Your task to perform on an android device: turn on wifi Image 0: 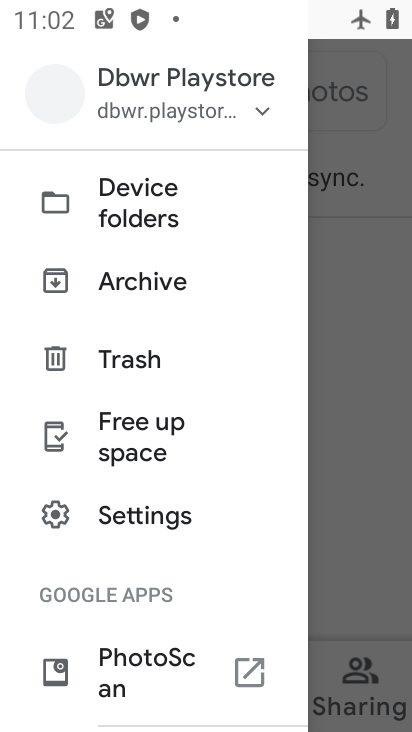
Step 0: press home button
Your task to perform on an android device: turn on wifi Image 1: 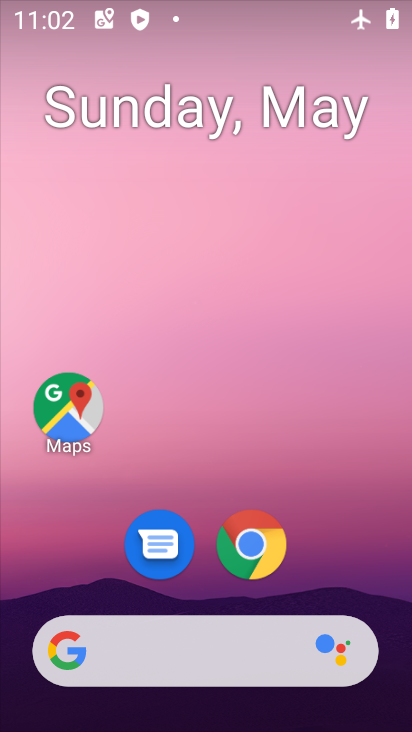
Step 1: drag from (351, 580) to (340, 285)
Your task to perform on an android device: turn on wifi Image 2: 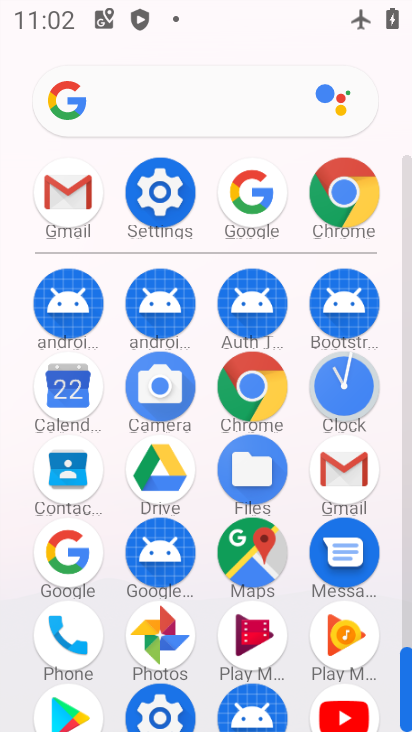
Step 2: click (158, 208)
Your task to perform on an android device: turn on wifi Image 3: 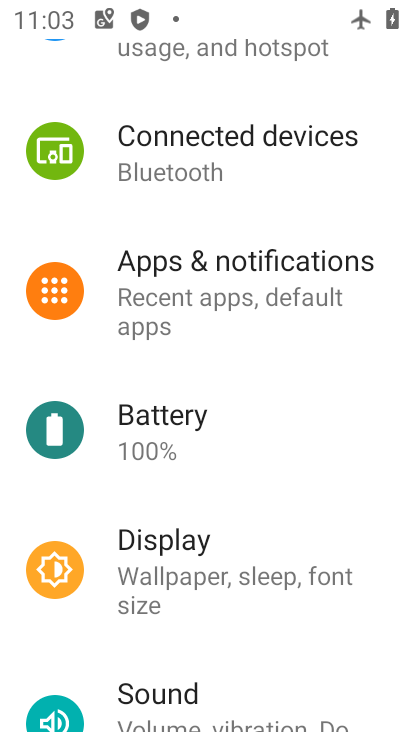
Step 3: drag from (316, 143) to (318, 654)
Your task to perform on an android device: turn on wifi Image 4: 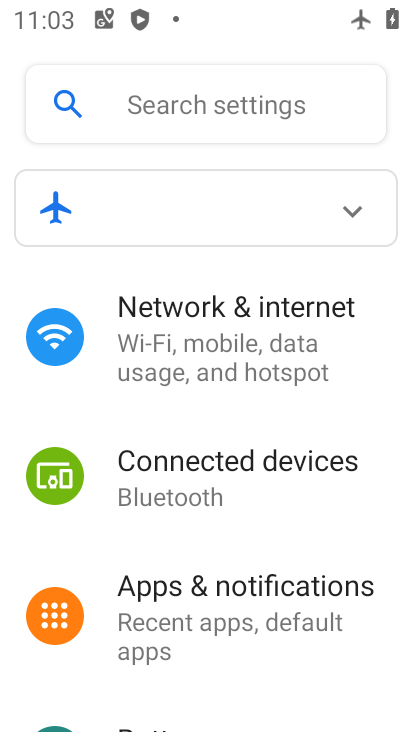
Step 4: click (267, 330)
Your task to perform on an android device: turn on wifi Image 5: 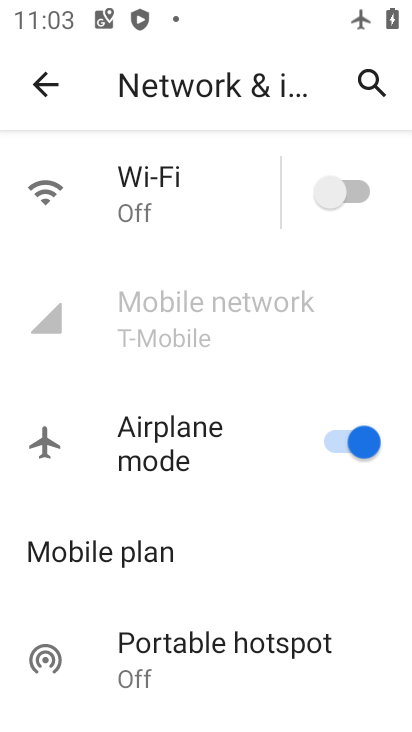
Step 5: click (339, 177)
Your task to perform on an android device: turn on wifi Image 6: 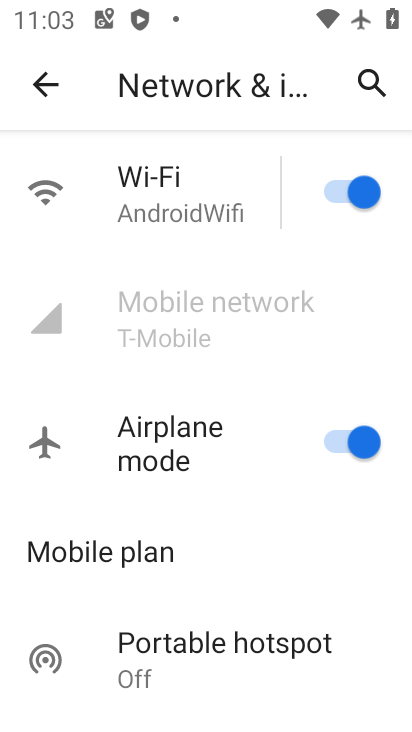
Step 6: task complete